Your task to perform on an android device: Go to ESPN.com Image 0: 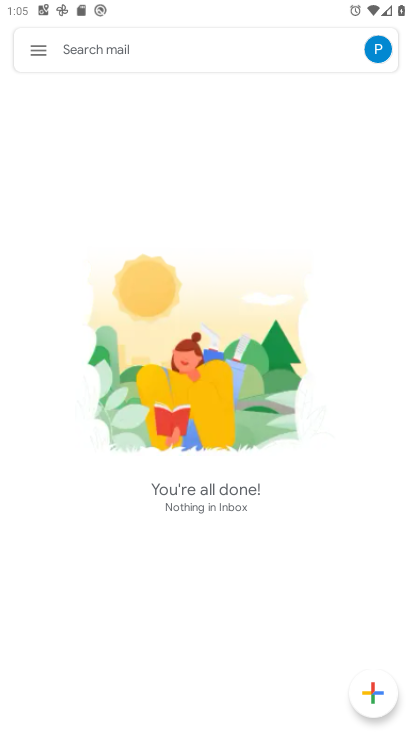
Step 0: press home button
Your task to perform on an android device: Go to ESPN.com Image 1: 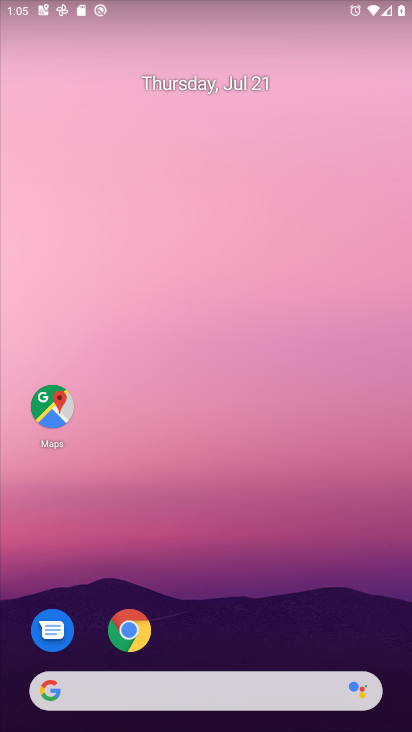
Step 1: press home button
Your task to perform on an android device: Go to ESPN.com Image 2: 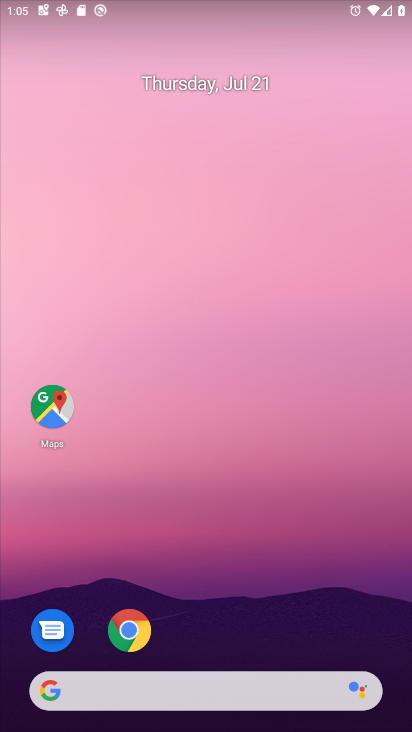
Step 2: drag from (214, 627) to (275, 88)
Your task to perform on an android device: Go to ESPN.com Image 3: 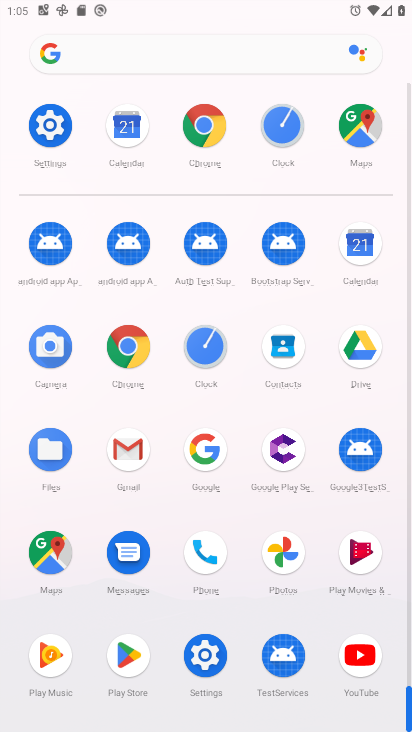
Step 3: click (199, 127)
Your task to perform on an android device: Go to ESPN.com Image 4: 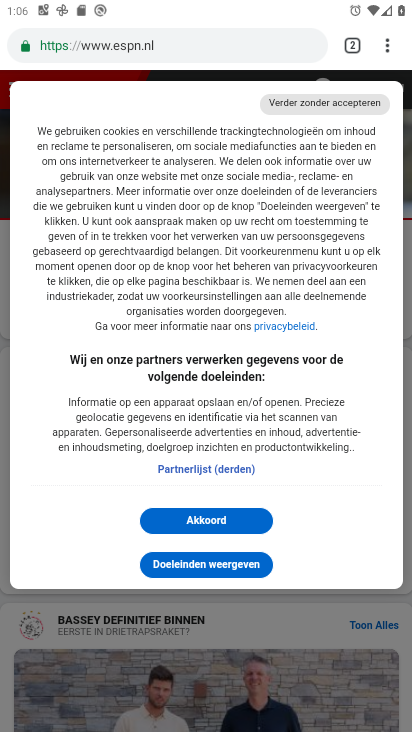
Step 4: task complete